Your task to perform on an android device: check android version Image 0: 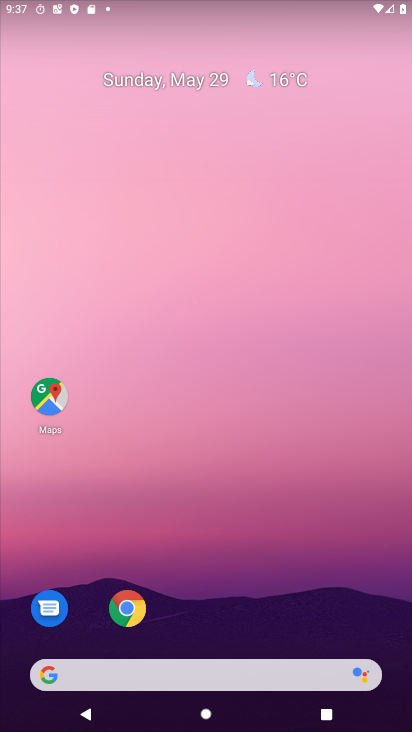
Step 0: drag from (185, 639) to (154, 288)
Your task to perform on an android device: check android version Image 1: 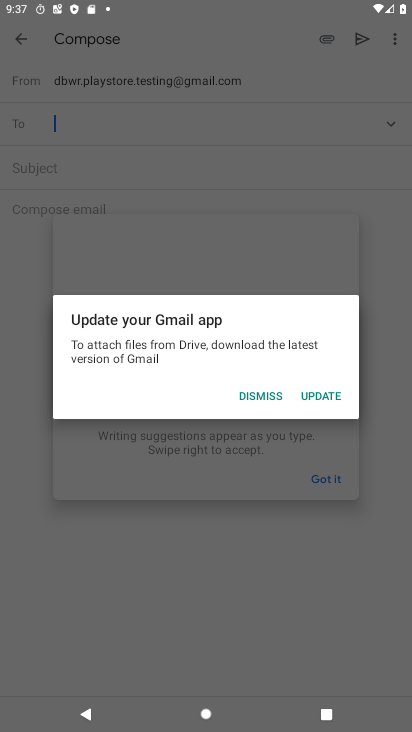
Step 1: click (354, 126)
Your task to perform on an android device: check android version Image 2: 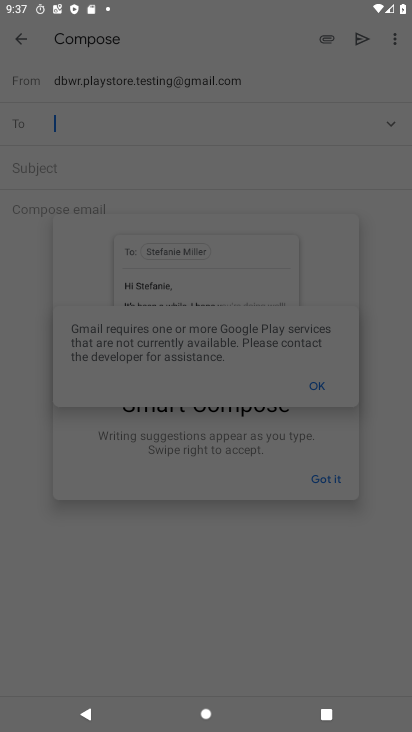
Step 2: press back button
Your task to perform on an android device: check android version Image 3: 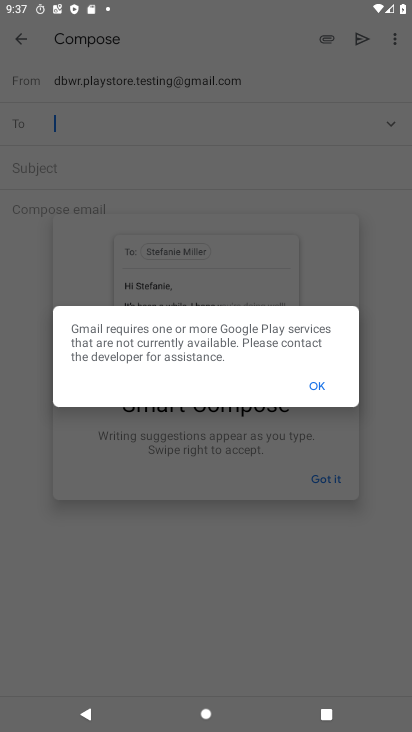
Step 3: press home button
Your task to perform on an android device: check android version Image 4: 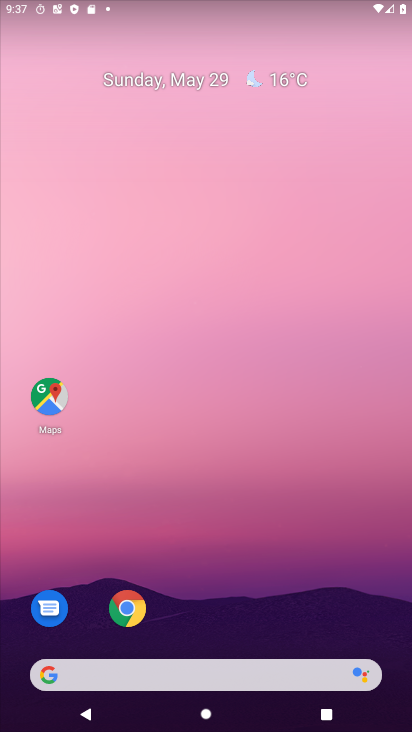
Step 4: drag from (183, 634) to (145, 111)
Your task to perform on an android device: check android version Image 5: 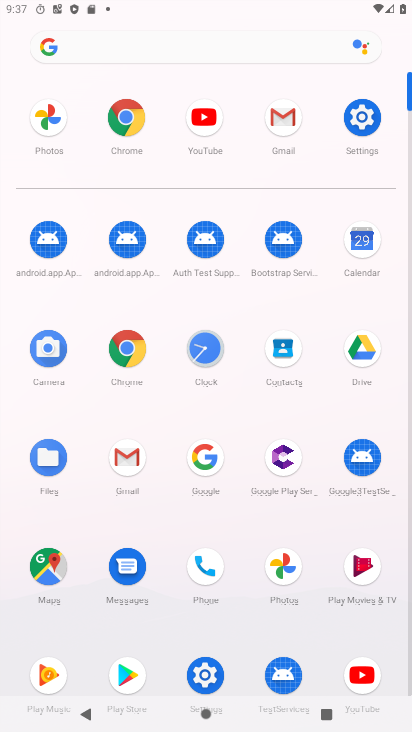
Step 5: click (360, 123)
Your task to perform on an android device: check android version Image 6: 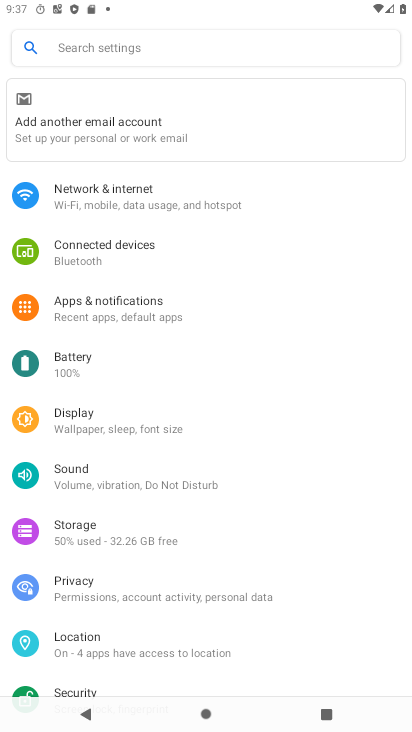
Step 6: drag from (128, 684) to (79, 159)
Your task to perform on an android device: check android version Image 7: 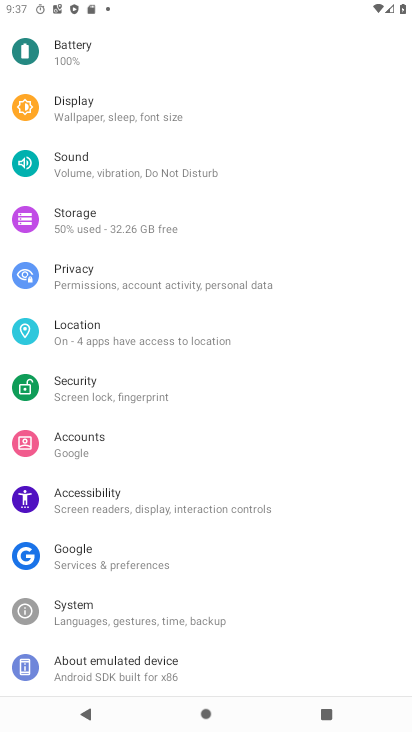
Step 7: click (67, 664)
Your task to perform on an android device: check android version Image 8: 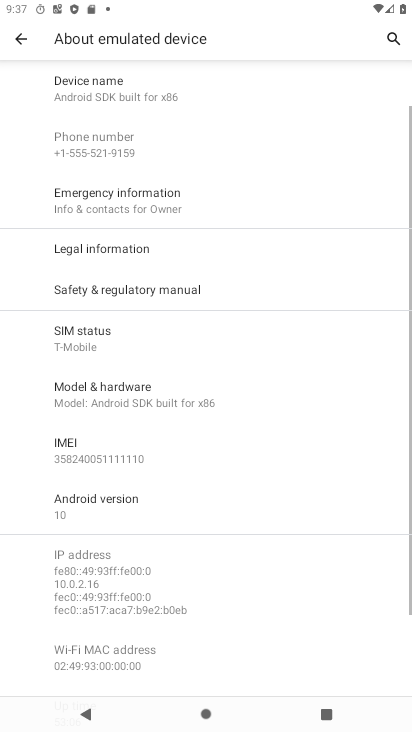
Step 8: click (68, 531)
Your task to perform on an android device: check android version Image 9: 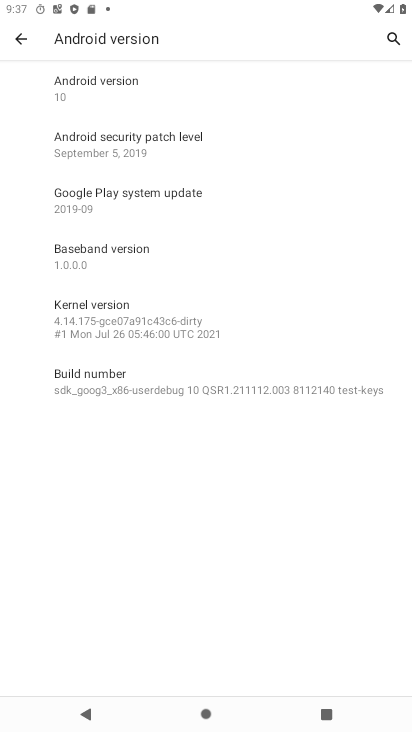
Step 9: task complete